Your task to perform on an android device: move a message to another label in the gmail app Image 0: 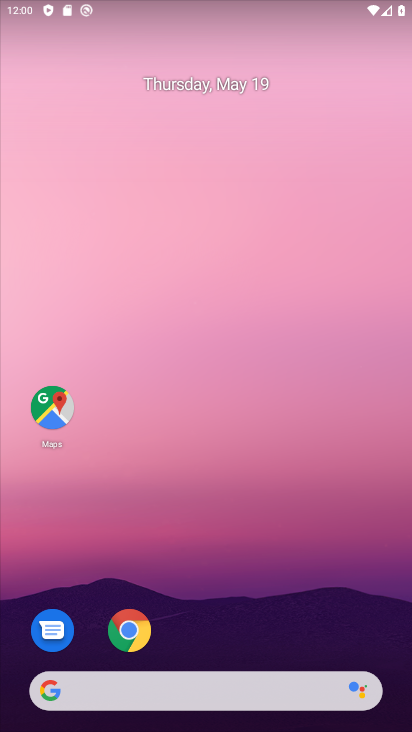
Step 0: drag from (315, 635) to (35, 100)
Your task to perform on an android device: move a message to another label in the gmail app Image 1: 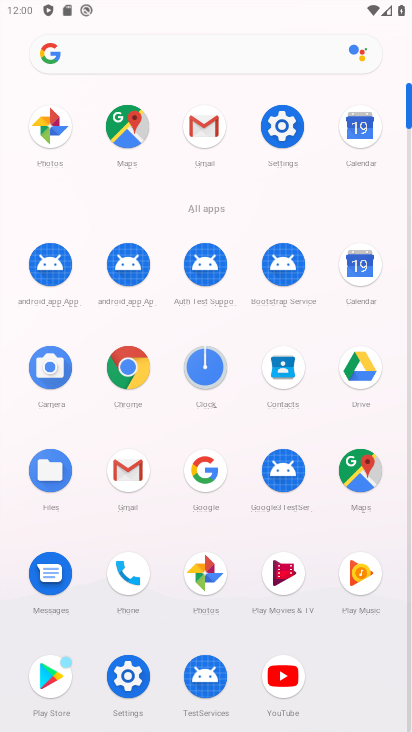
Step 1: click (142, 477)
Your task to perform on an android device: move a message to another label in the gmail app Image 2: 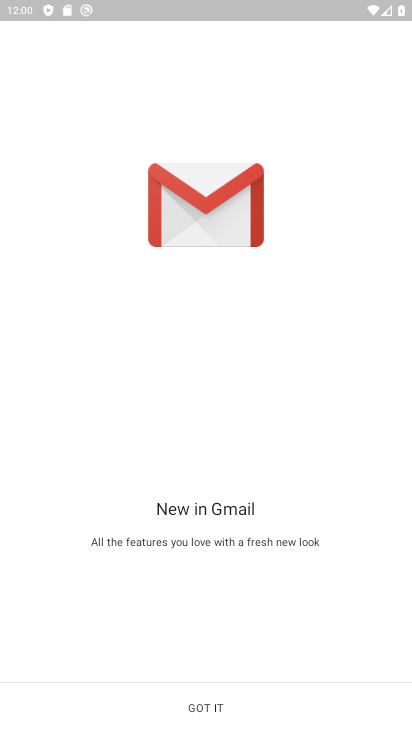
Step 2: click (215, 703)
Your task to perform on an android device: move a message to another label in the gmail app Image 3: 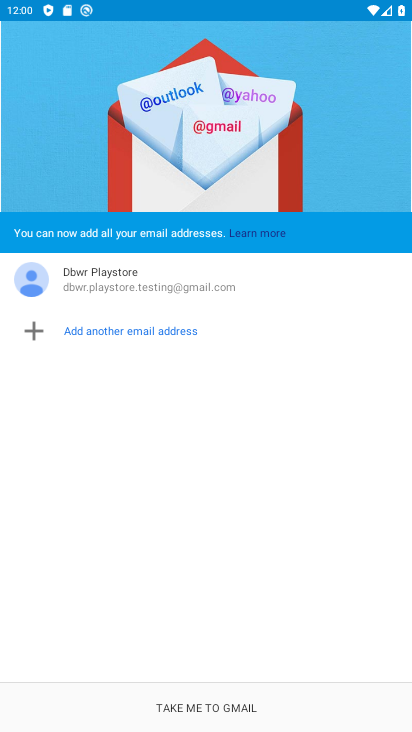
Step 3: click (215, 703)
Your task to perform on an android device: move a message to another label in the gmail app Image 4: 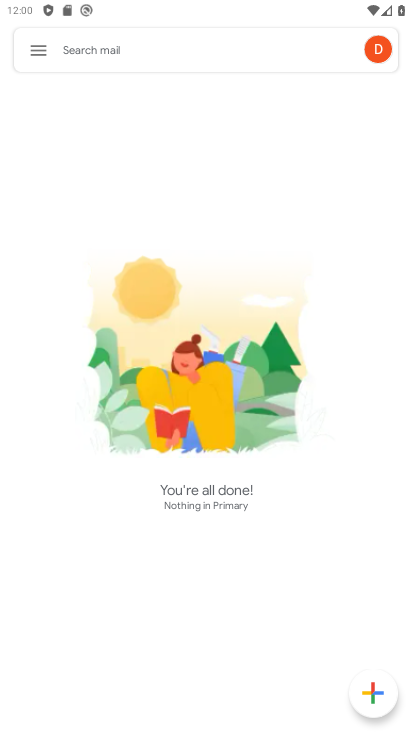
Step 4: click (42, 50)
Your task to perform on an android device: move a message to another label in the gmail app Image 5: 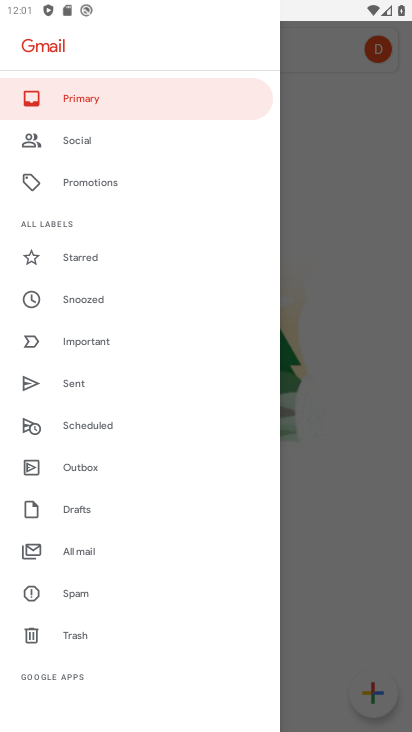
Step 5: click (87, 546)
Your task to perform on an android device: move a message to another label in the gmail app Image 6: 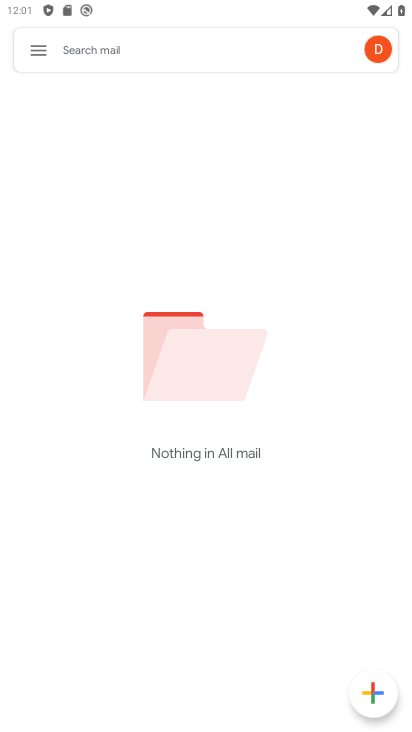
Step 6: task complete